Your task to perform on an android device: What's the weather going to be this weekend? Image 0: 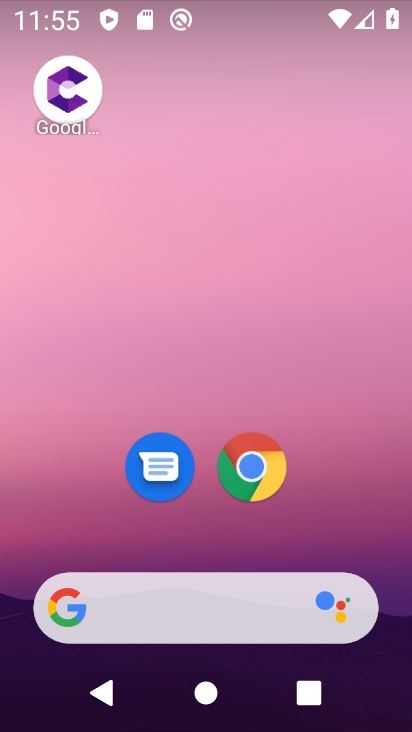
Step 0: drag from (373, 561) to (360, 109)
Your task to perform on an android device: What's the weather going to be this weekend? Image 1: 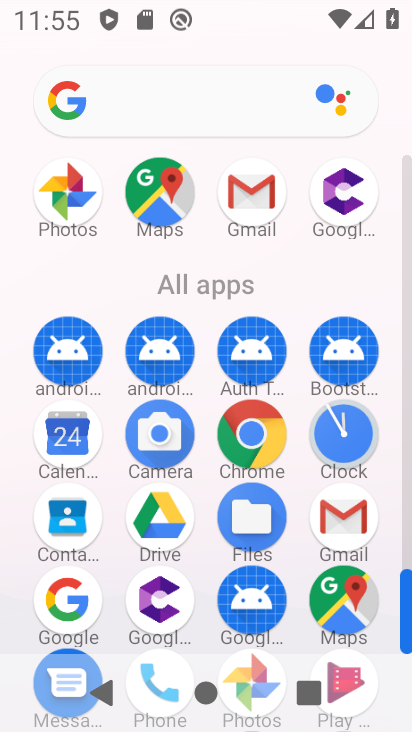
Step 1: click (406, 663)
Your task to perform on an android device: What's the weather going to be this weekend? Image 2: 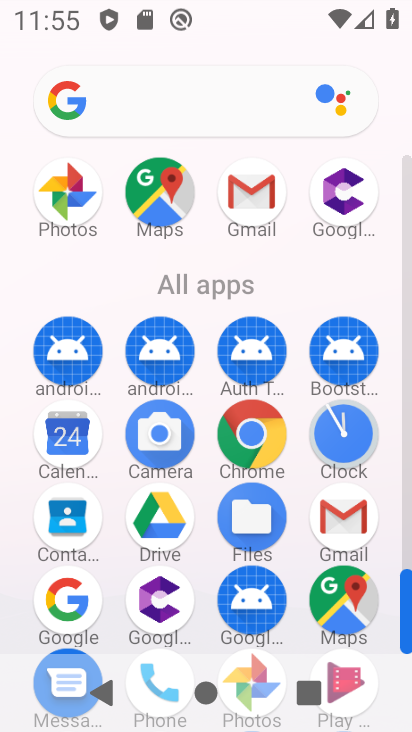
Step 2: click (66, 429)
Your task to perform on an android device: What's the weather going to be this weekend? Image 3: 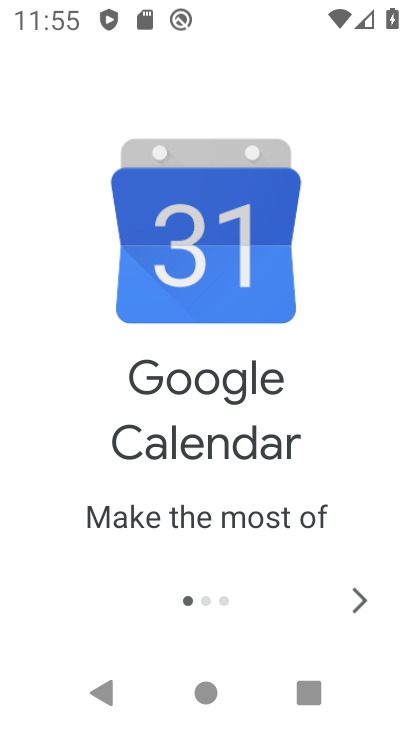
Step 3: click (354, 591)
Your task to perform on an android device: What's the weather going to be this weekend? Image 4: 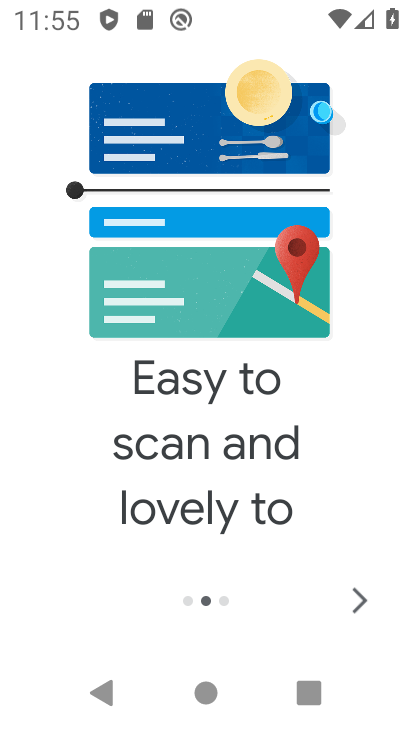
Step 4: click (354, 591)
Your task to perform on an android device: What's the weather going to be this weekend? Image 5: 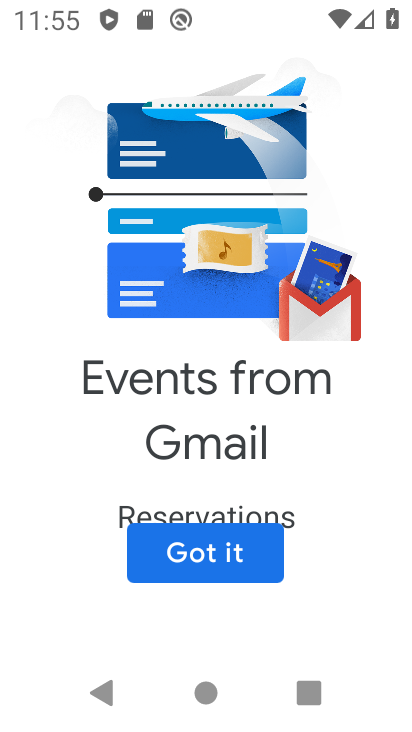
Step 5: click (189, 557)
Your task to perform on an android device: What's the weather going to be this weekend? Image 6: 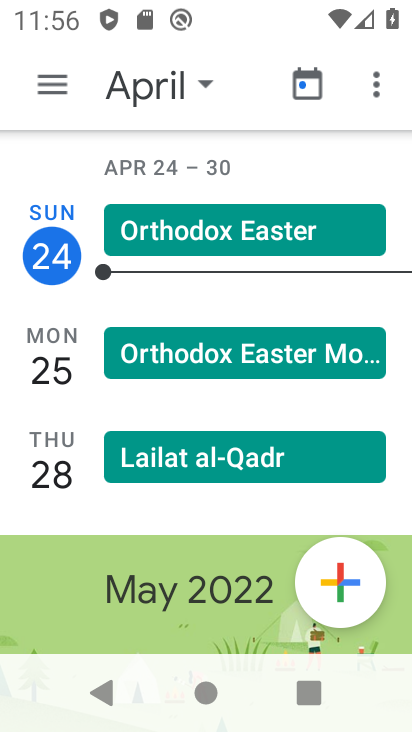
Step 6: click (51, 89)
Your task to perform on an android device: What's the weather going to be this weekend? Image 7: 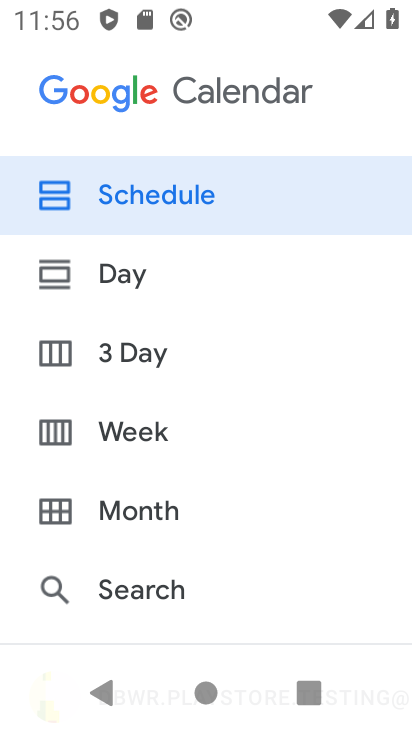
Step 7: click (137, 433)
Your task to perform on an android device: What's the weather going to be this weekend? Image 8: 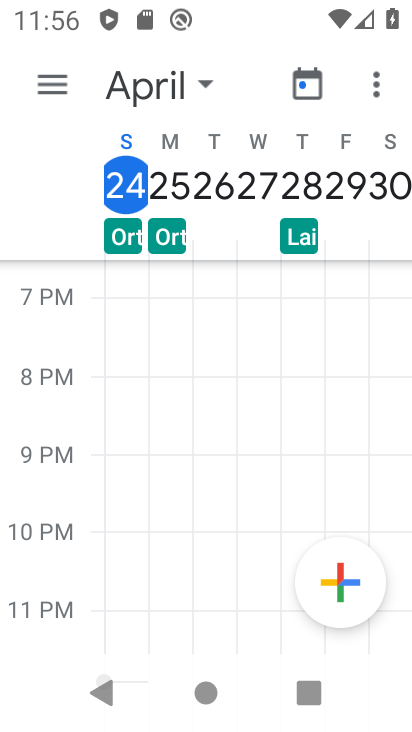
Step 8: task complete